Your task to perform on an android device: Go to ESPN.com Image 0: 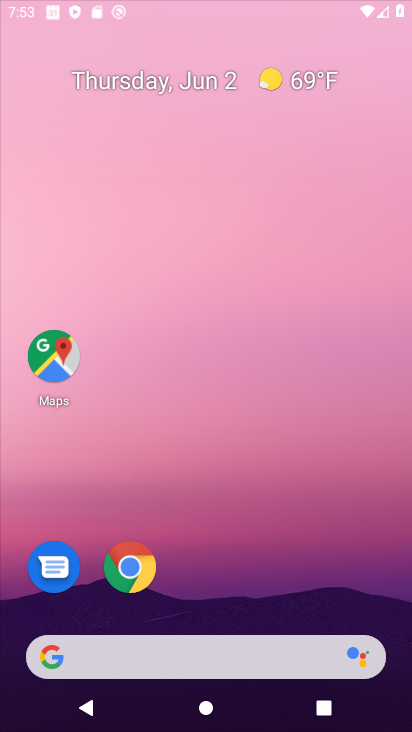
Step 0: click (308, 16)
Your task to perform on an android device: Go to ESPN.com Image 1: 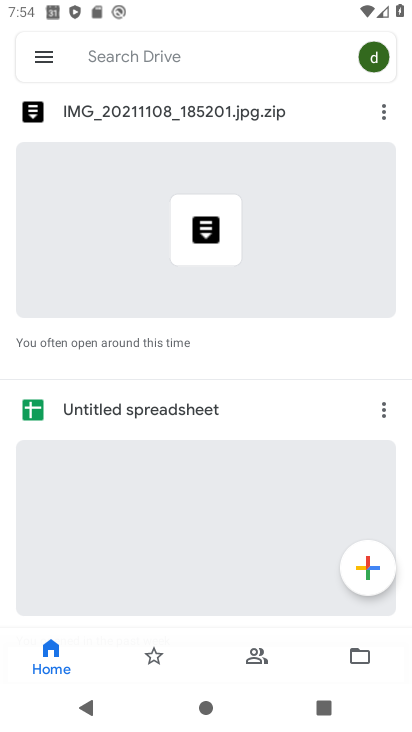
Step 1: press home button
Your task to perform on an android device: Go to ESPN.com Image 2: 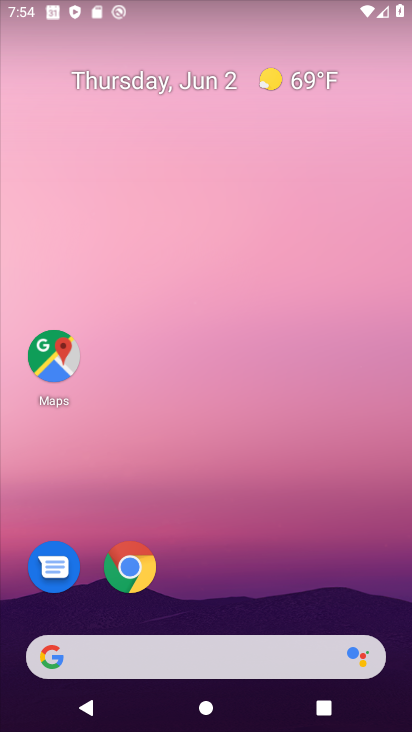
Step 2: click (130, 562)
Your task to perform on an android device: Go to ESPN.com Image 3: 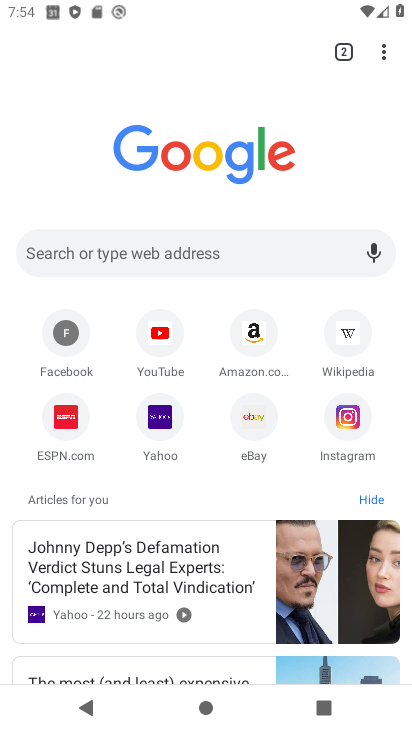
Step 3: click (127, 251)
Your task to perform on an android device: Go to ESPN.com Image 4: 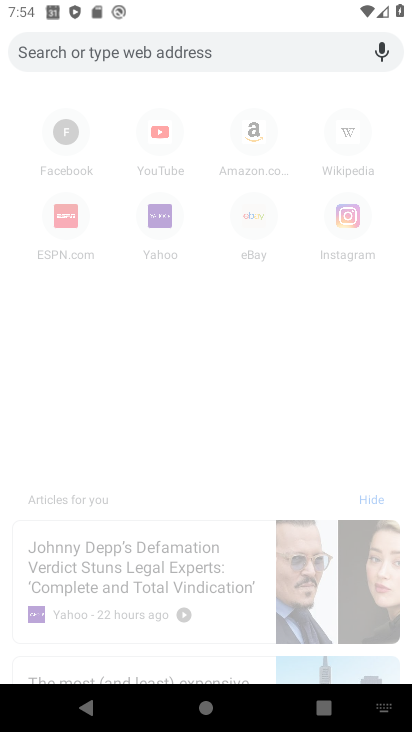
Step 4: type "espn.com"
Your task to perform on an android device: Go to ESPN.com Image 5: 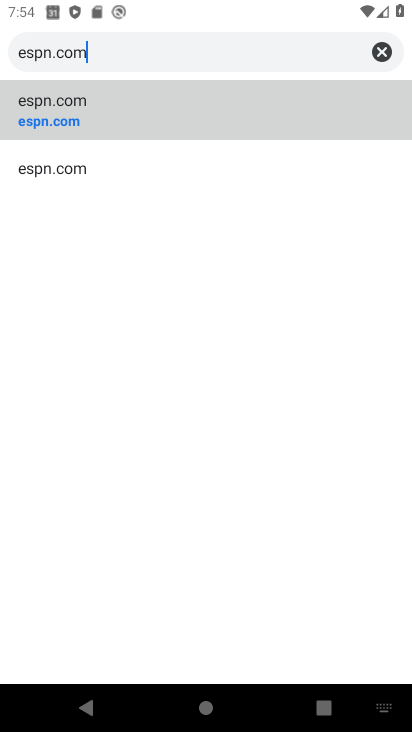
Step 5: click (50, 103)
Your task to perform on an android device: Go to ESPN.com Image 6: 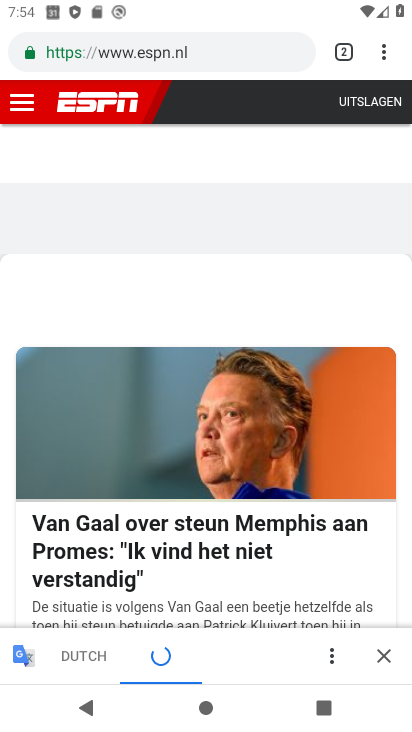
Step 6: task complete